Your task to perform on an android device: Toggle the flashlight Image 0: 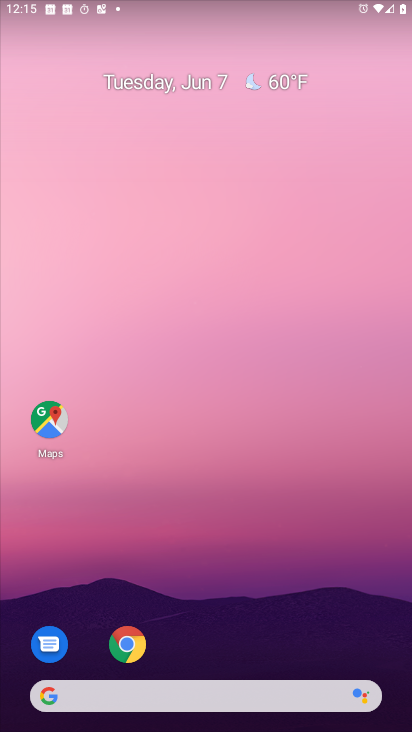
Step 0: drag from (222, 20) to (246, 542)
Your task to perform on an android device: Toggle the flashlight Image 1: 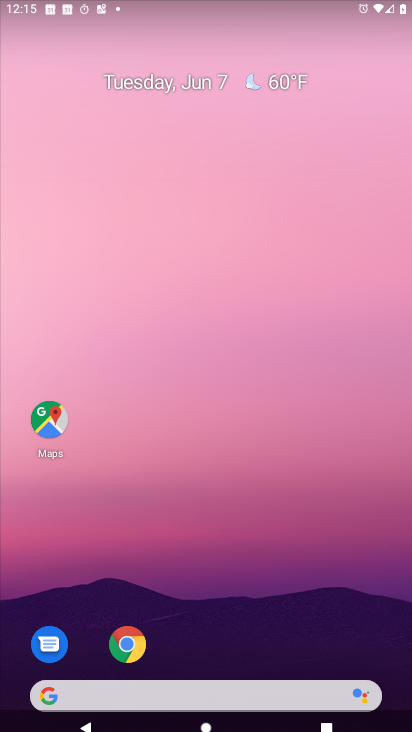
Step 1: task complete